Your task to perform on an android device: change the clock display to analog Image 0: 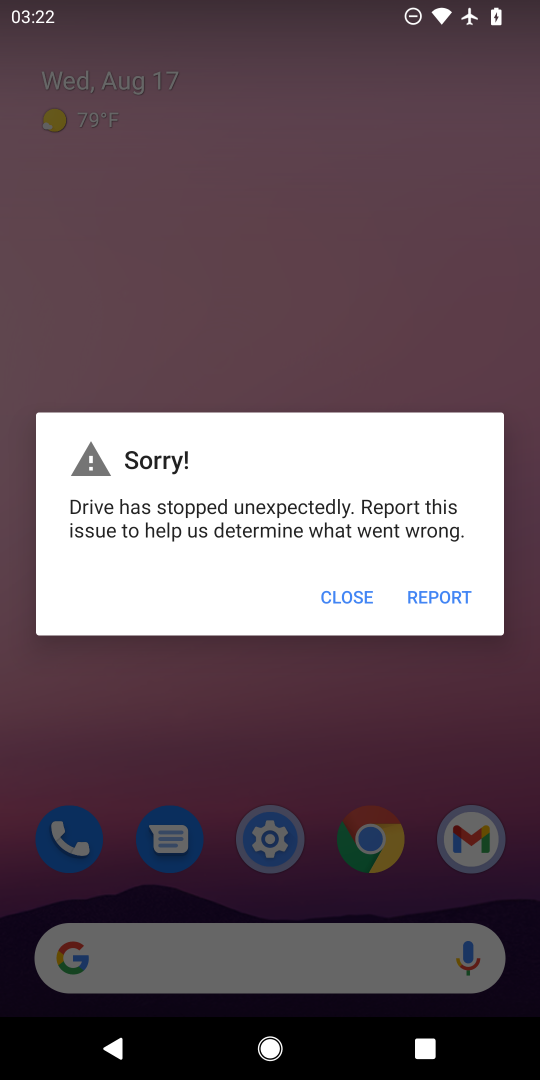
Step 0: press home button
Your task to perform on an android device: change the clock display to analog Image 1: 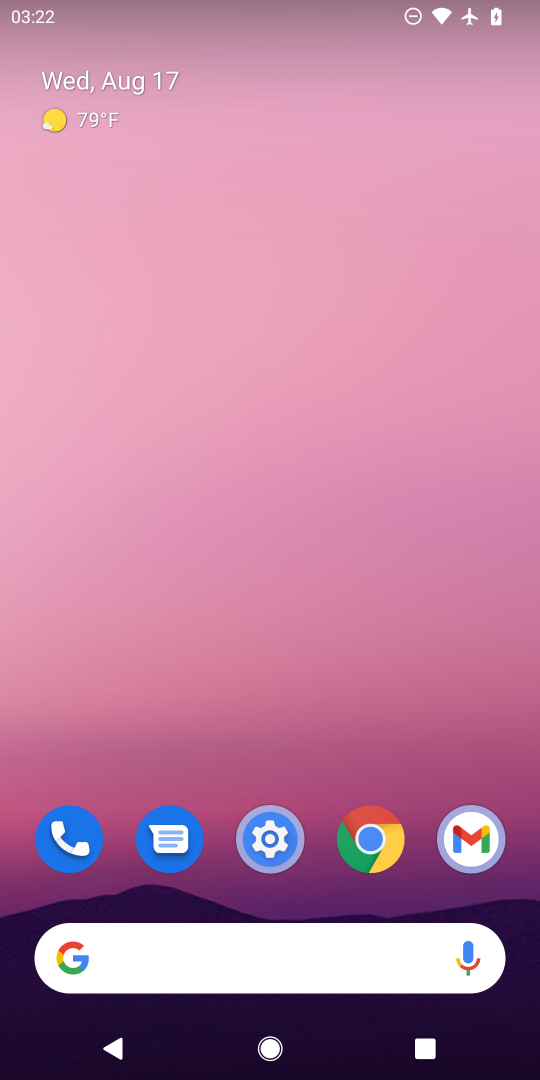
Step 1: drag from (338, 826) to (370, 33)
Your task to perform on an android device: change the clock display to analog Image 2: 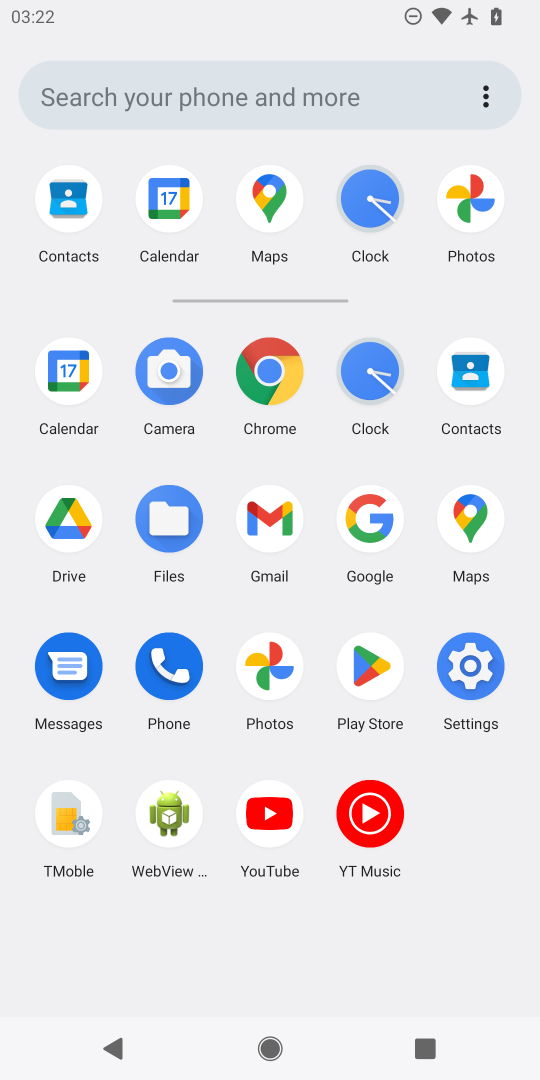
Step 2: click (373, 384)
Your task to perform on an android device: change the clock display to analog Image 3: 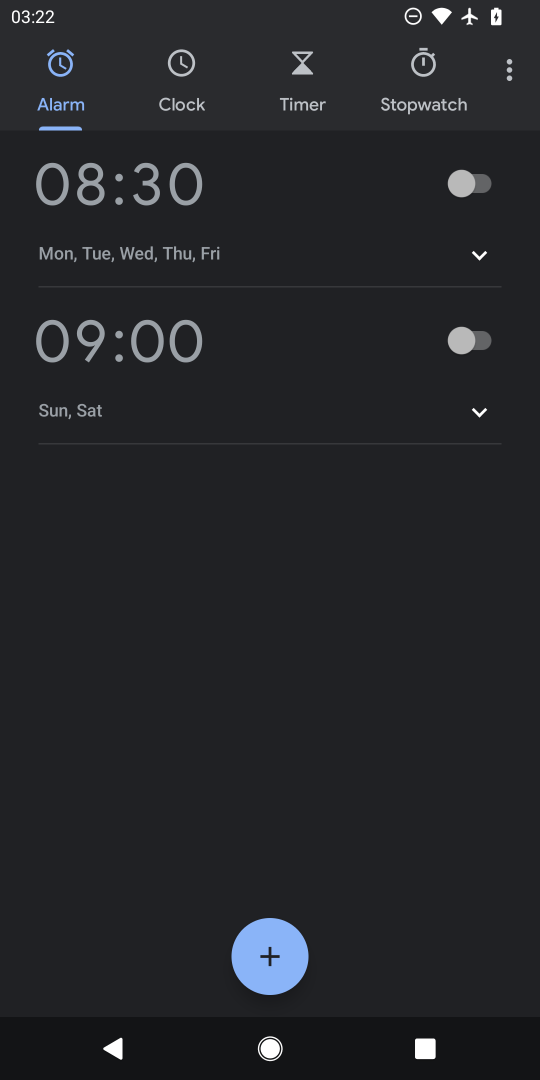
Step 3: click (511, 86)
Your task to perform on an android device: change the clock display to analog Image 4: 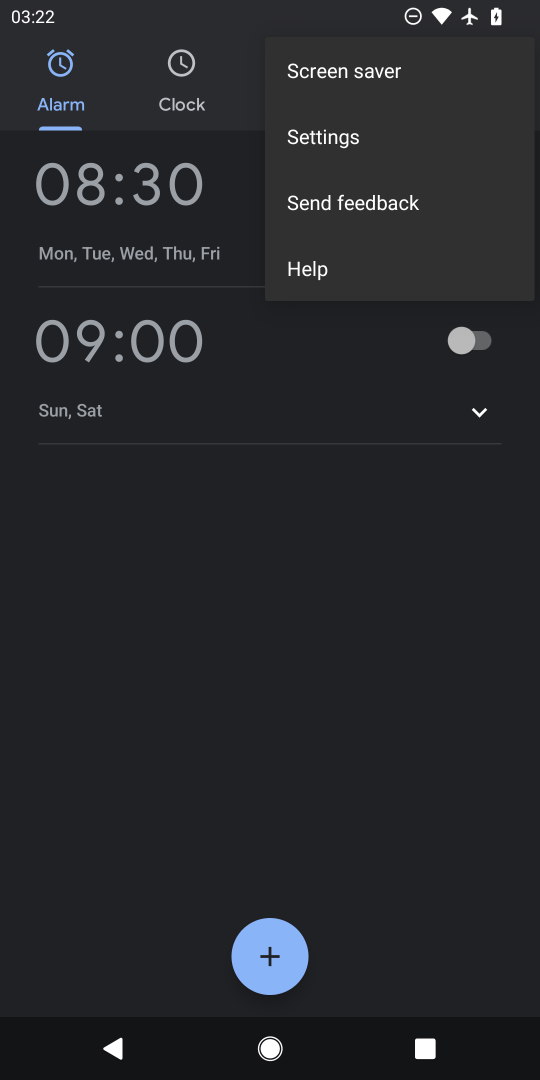
Step 4: click (326, 145)
Your task to perform on an android device: change the clock display to analog Image 5: 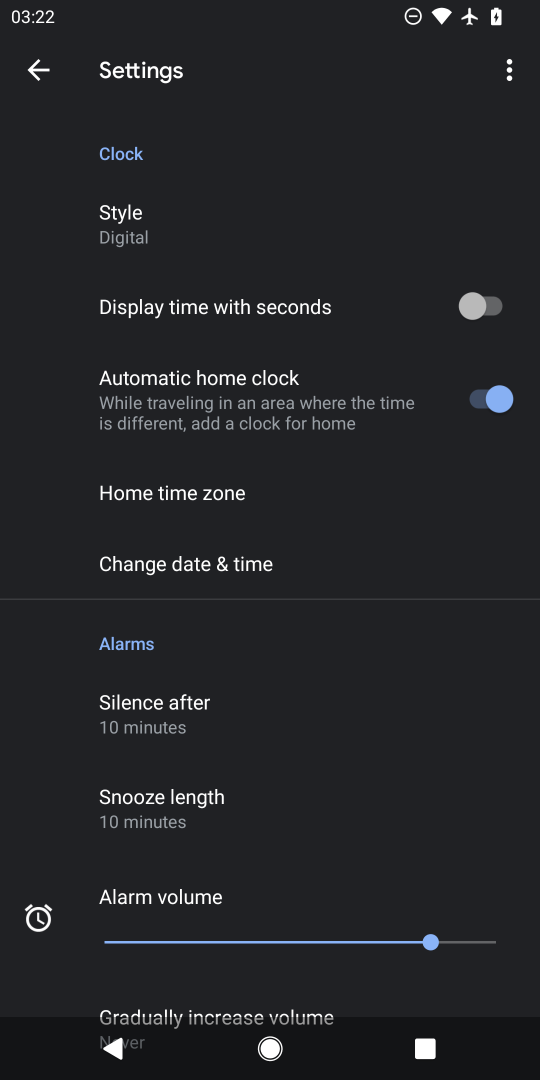
Step 5: click (111, 221)
Your task to perform on an android device: change the clock display to analog Image 6: 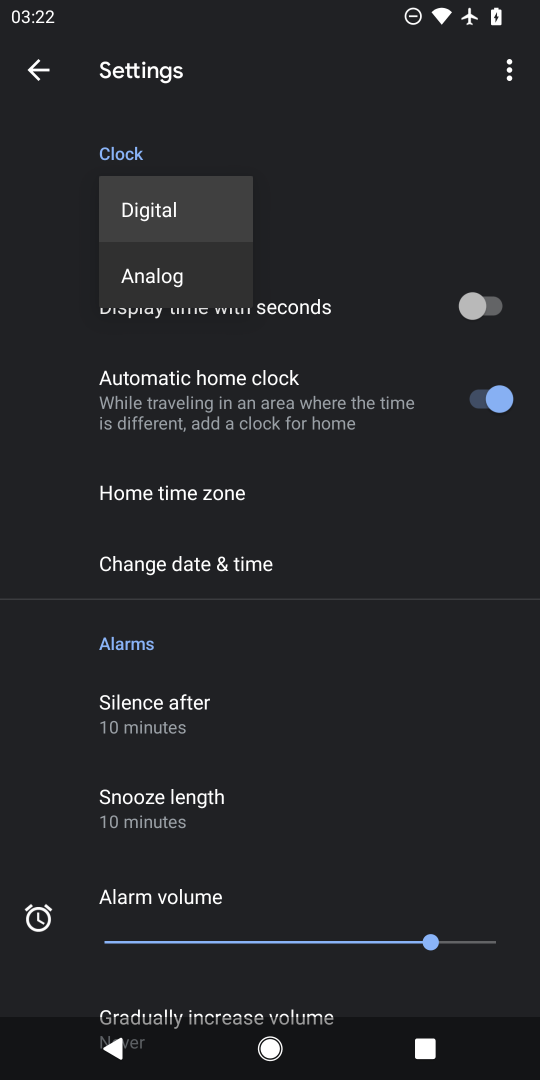
Step 6: click (149, 277)
Your task to perform on an android device: change the clock display to analog Image 7: 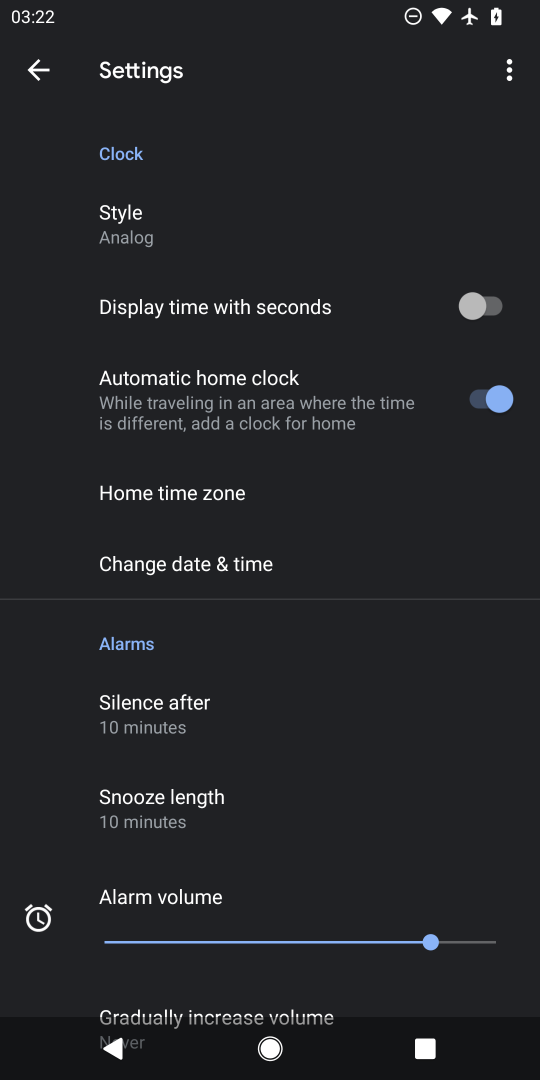
Step 7: task complete